Your task to perform on an android device: Go to eBay Image 0: 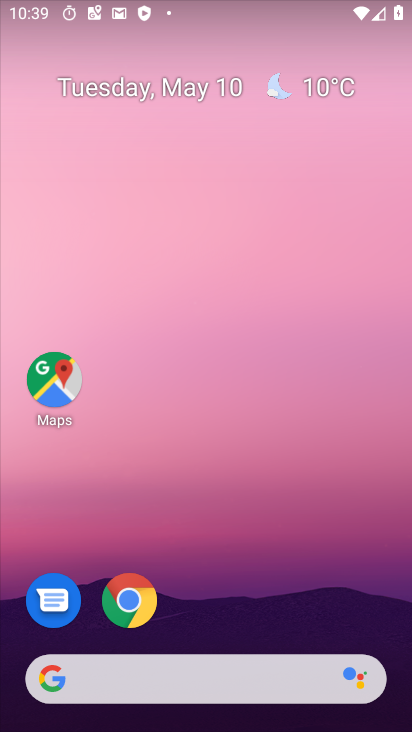
Step 0: drag from (245, 473) to (214, 74)
Your task to perform on an android device: Go to eBay Image 1: 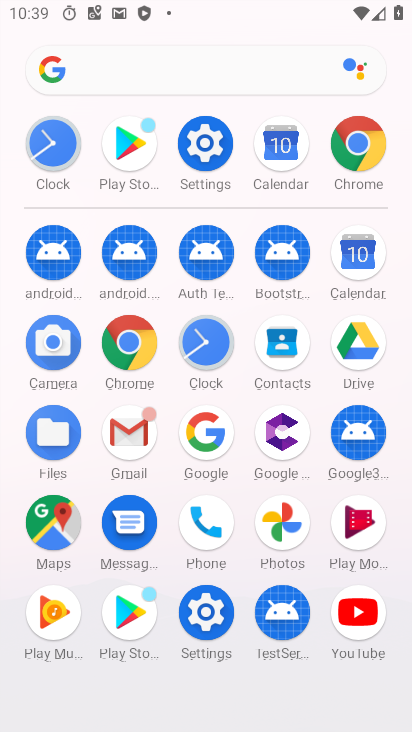
Step 1: click (355, 143)
Your task to perform on an android device: Go to eBay Image 2: 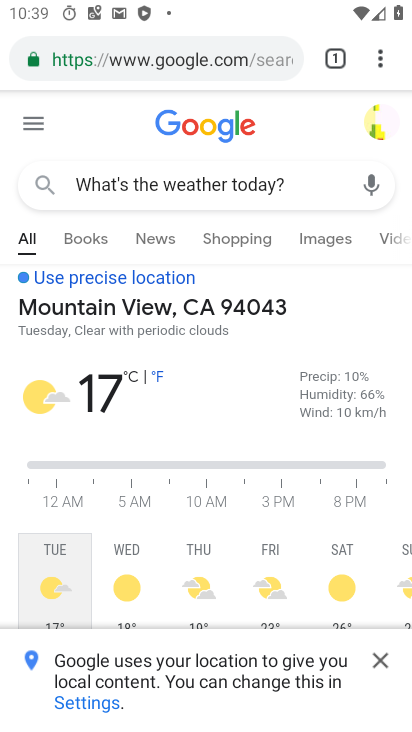
Step 2: click (194, 57)
Your task to perform on an android device: Go to eBay Image 3: 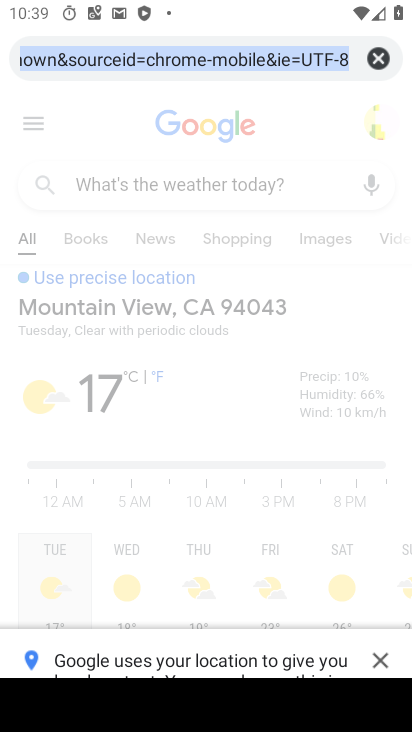
Step 3: click (371, 58)
Your task to perform on an android device: Go to eBay Image 4: 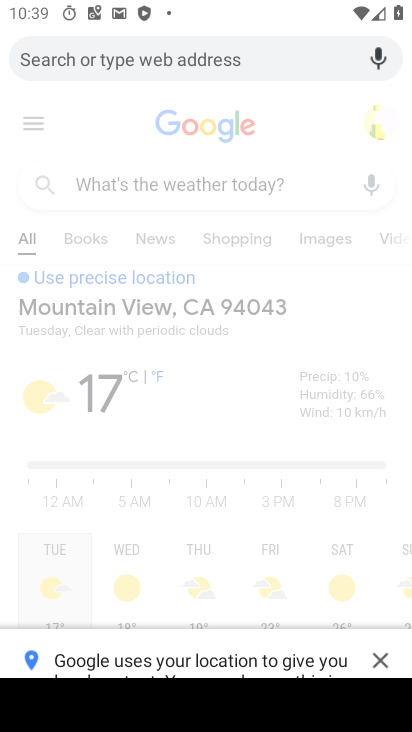
Step 4: type "eBay"
Your task to perform on an android device: Go to eBay Image 5: 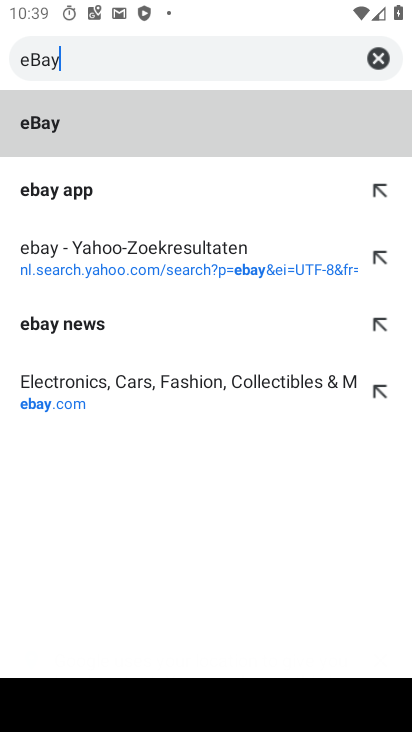
Step 5: click (93, 124)
Your task to perform on an android device: Go to eBay Image 6: 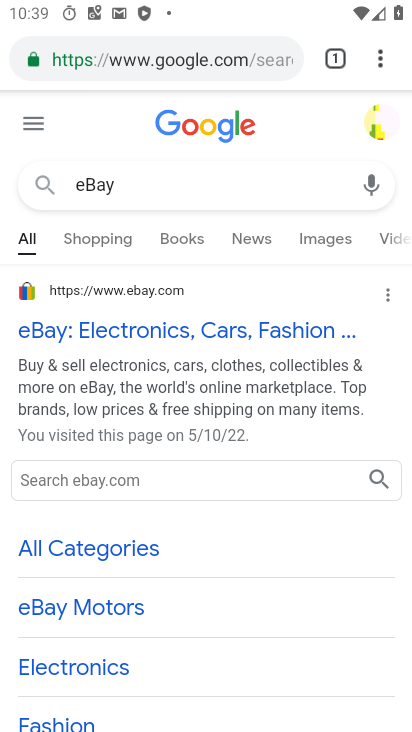
Step 6: click (151, 329)
Your task to perform on an android device: Go to eBay Image 7: 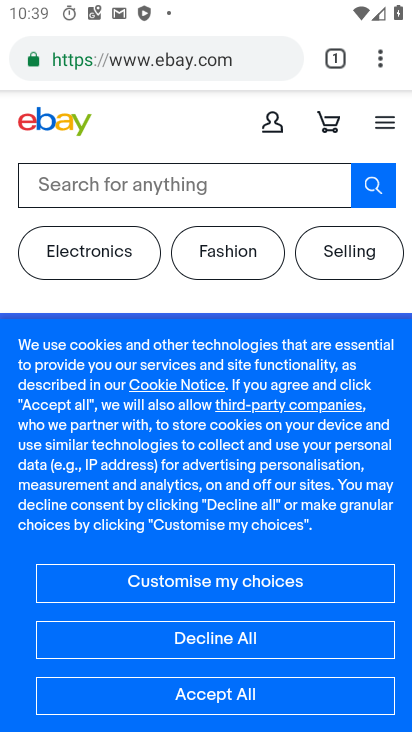
Step 7: click (221, 693)
Your task to perform on an android device: Go to eBay Image 8: 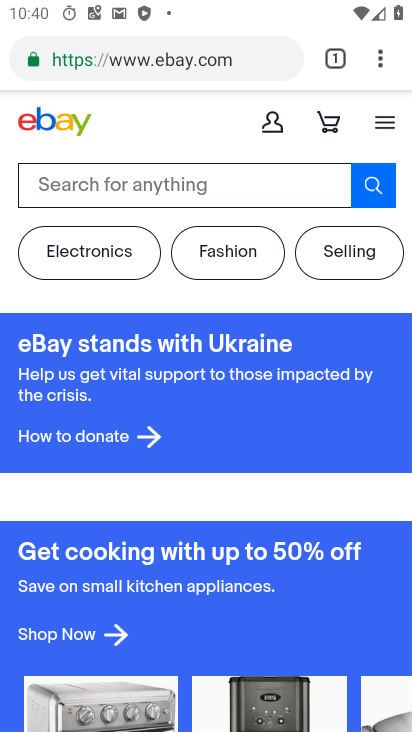
Step 8: task complete